Your task to perform on an android device: manage bookmarks in the chrome app Image 0: 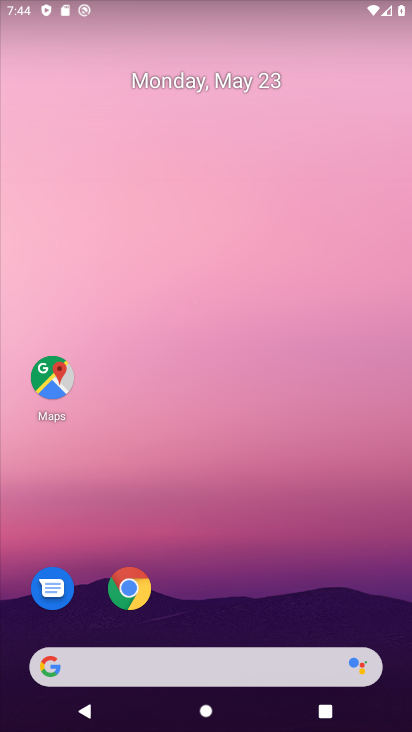
Step 0: click (135, 585)
Your task to perform on an android device: manage bookmarks in the chrome app Image 1: 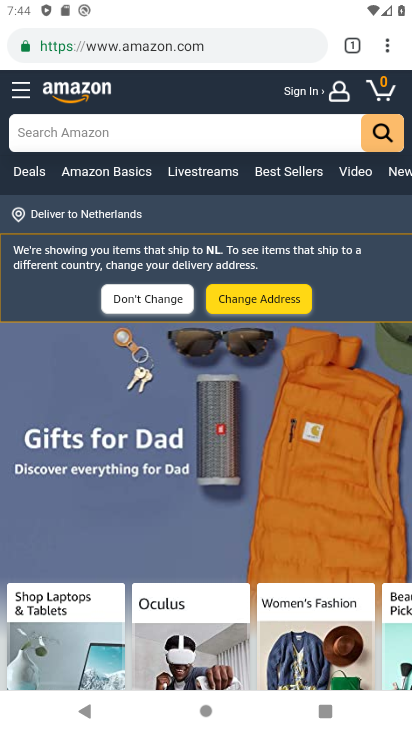
Step 1: click (380, 43)
Your task to perform on an android device: manage bookmarks in the chrome app Image 2: 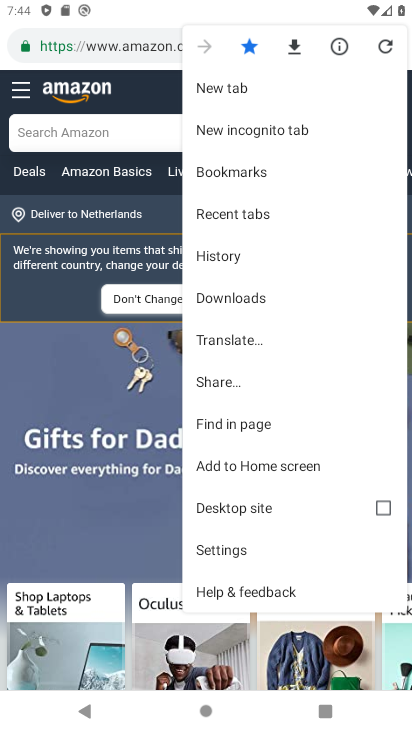
Step 2: click (214, 169)
Your task to perform on an android device: manage bookmarks in the chrome app Image 3: 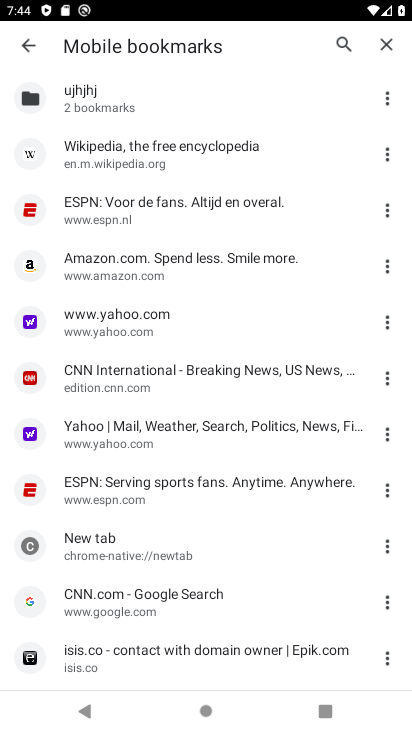
Step 3: click (392, 434)
Your task to perform on an android device: manage bookmarks in the chrome app Image 4: 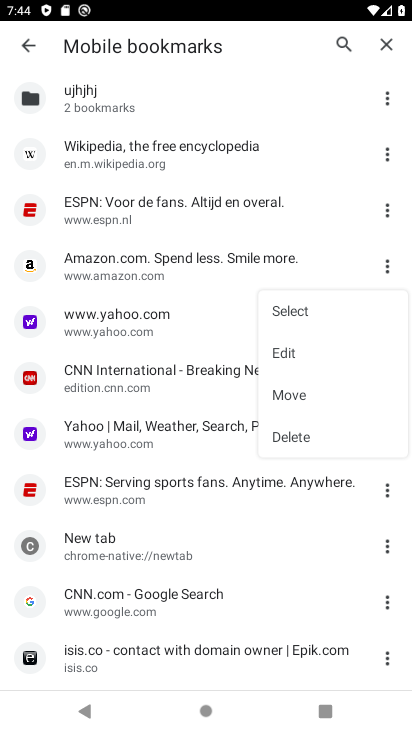
Step 4: click (273, 434)
Your task to perform on an android device: manage bookmarks in the chrome app Image 5: 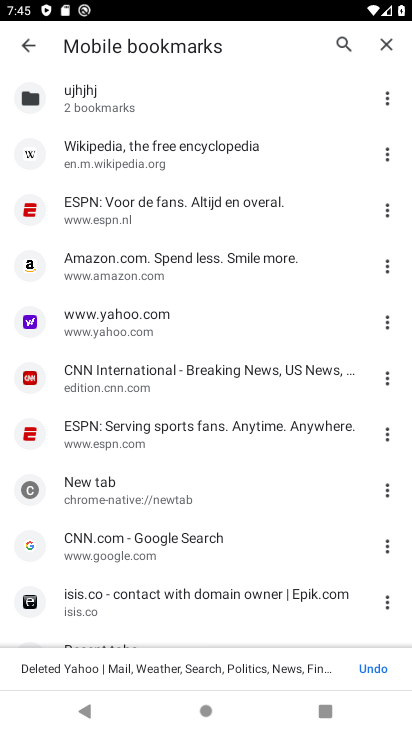
Step 5: task complete